Your task to perform on an android device: turn off location Image 0: 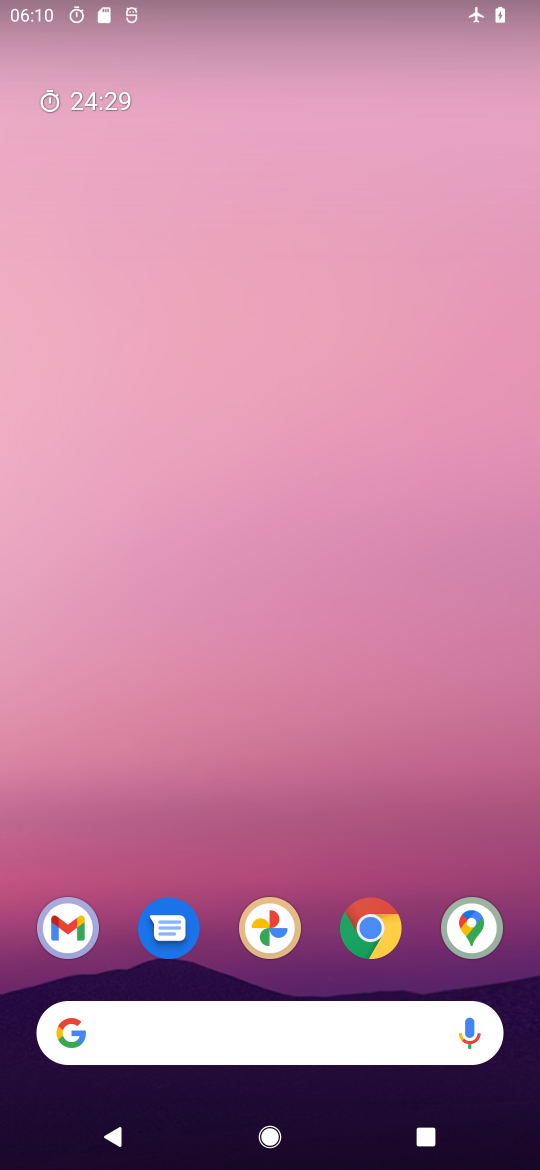
Step 0: drag from (242, 974) to (331, 0)
Your task to perform on an android device: turn off location Image 1: 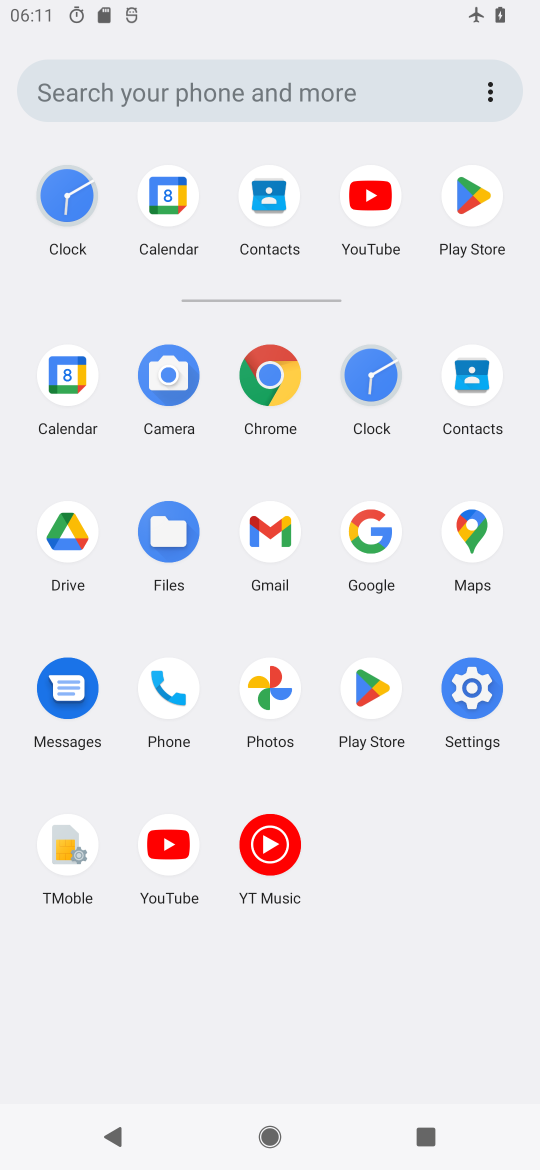
Step 1: click (479, 710)
Your task to perform on an android device: turn off location Image 2: 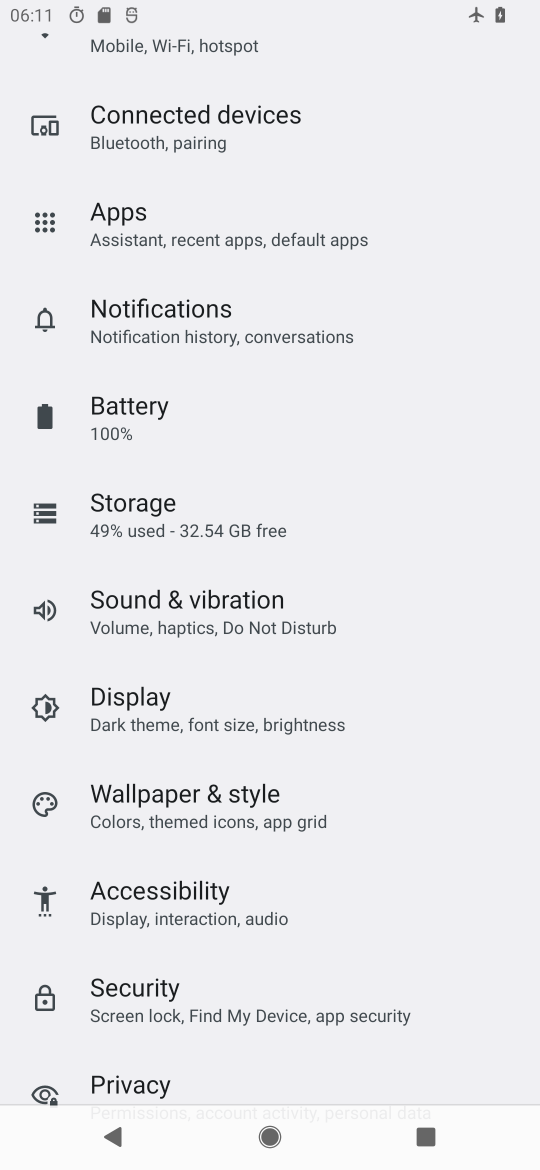
Step 2: drag from (203, 938) to (196, 581)
Your task to perform on an android device: turn off location Image 3: 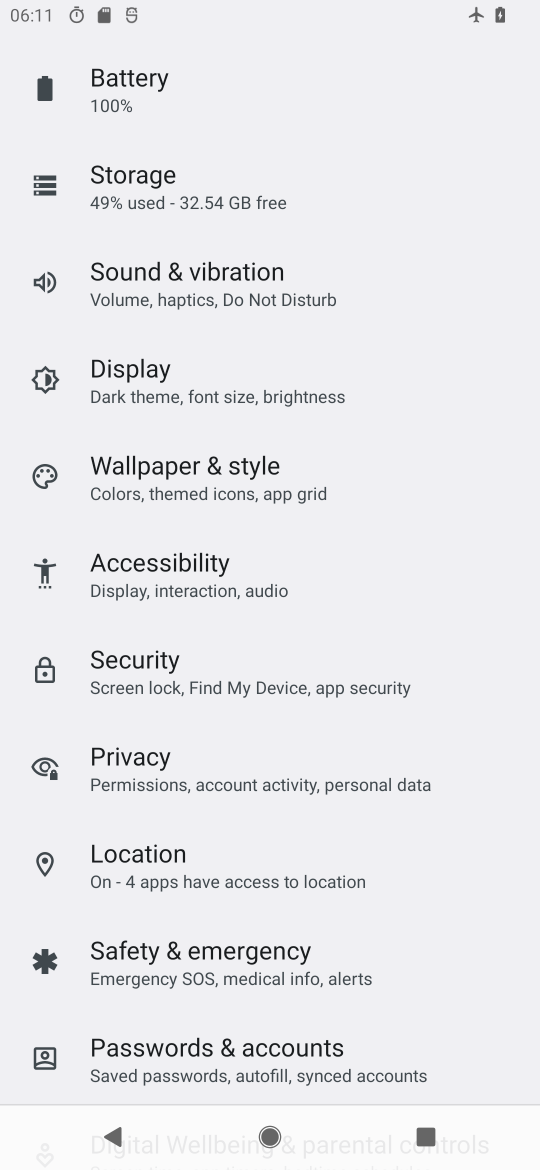
Step 3: click (182, 874)
Your task to perform on an android device: turn off location Image 4: 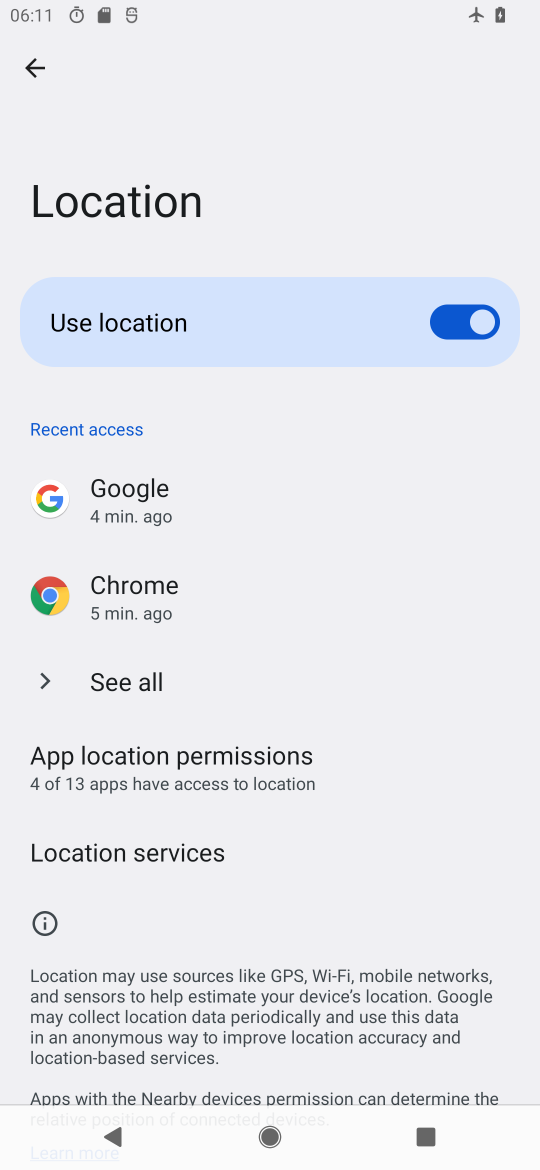
Step 4: click (420, 315)
Your task to perform on an android device: turn off location Image 5: 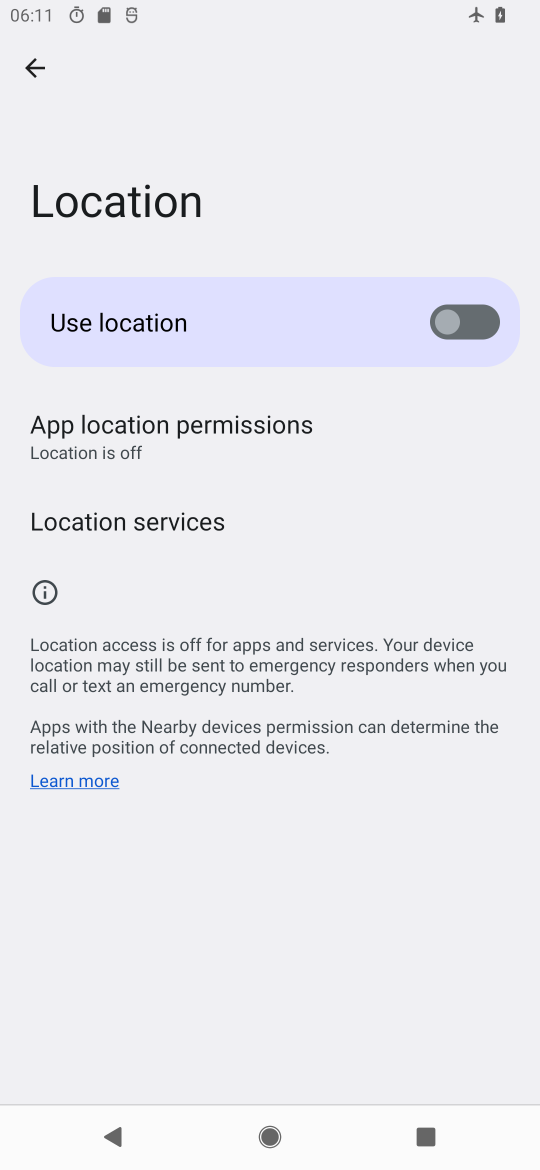
Step 5: task complete